Your task to perform on an android device: turn on location history Image 0: 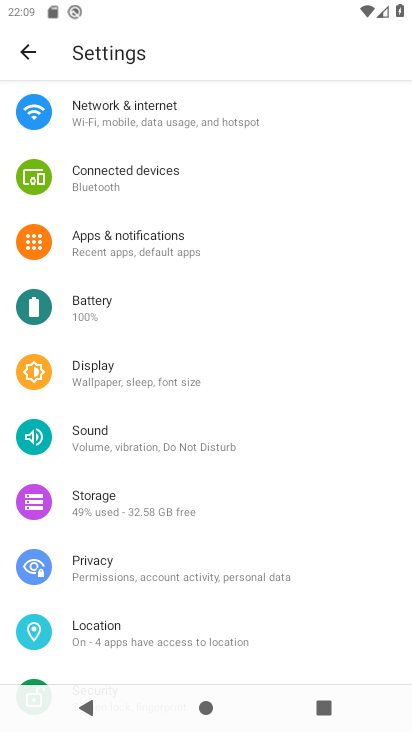
Step 0: click (144, 629)
Your task to perform on an android device: turn on location history Image 1: 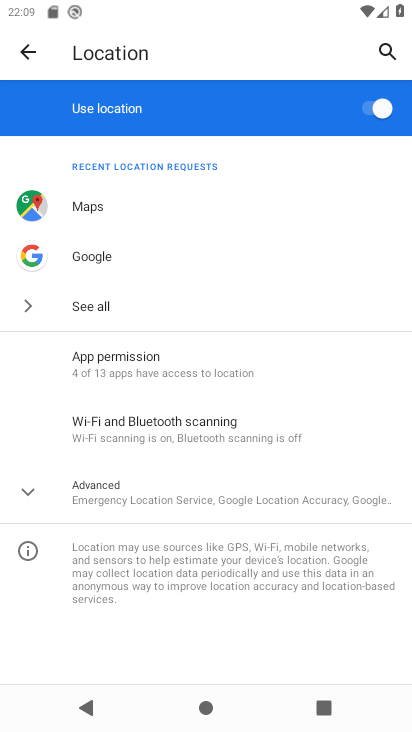
Step 1: click (31, 482)
Your task to perform on an android device: turn on location history Image 2: 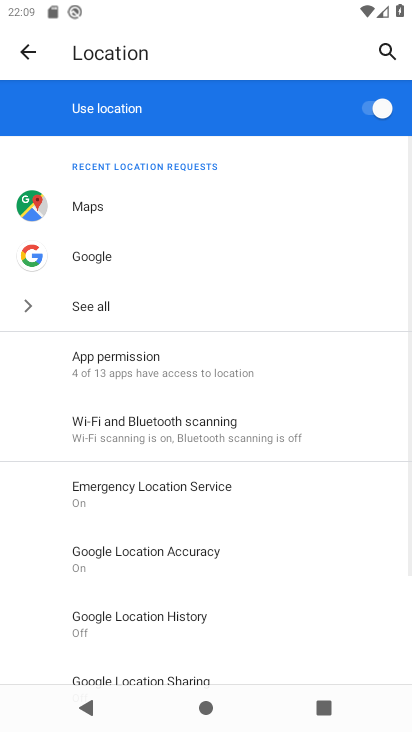
Step 2: task complete